Your task to perform on an android device: check data usage Image 0: 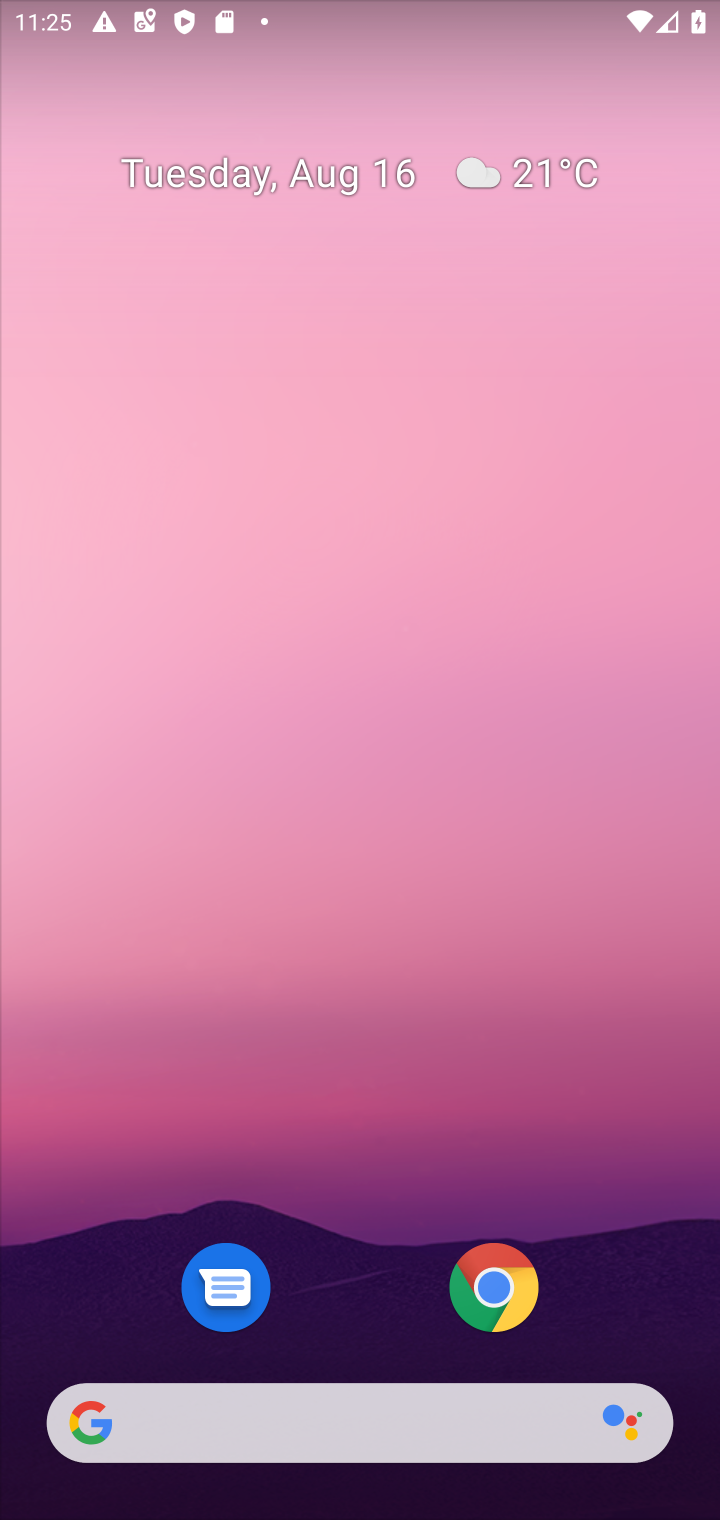
Step 0: drag from (637, 971) to (629, 336)
Your task to perform on an android device: check data usage Image 1: 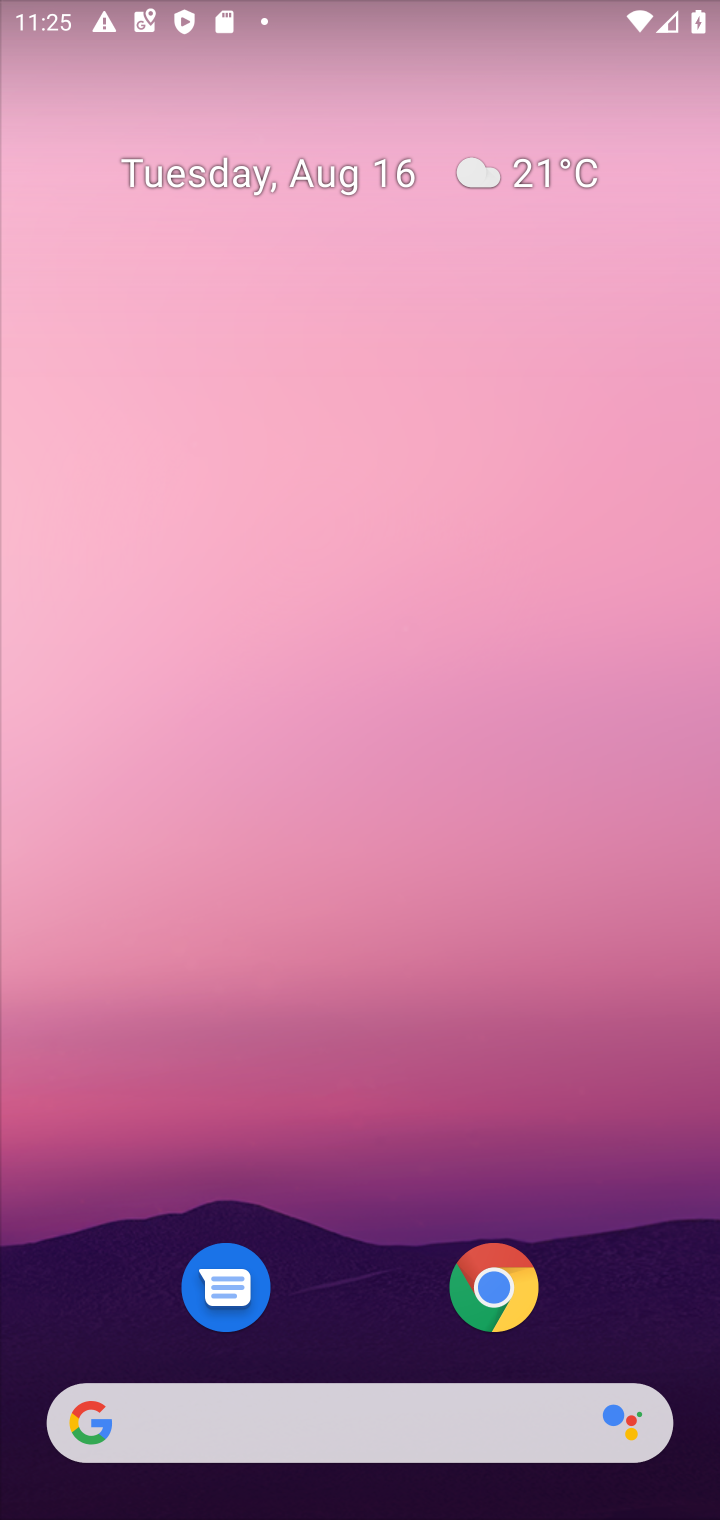
Step 1: drag from (675, 1309) to (598, 166)
Your task to perform on an android device: check data usage Image 2: 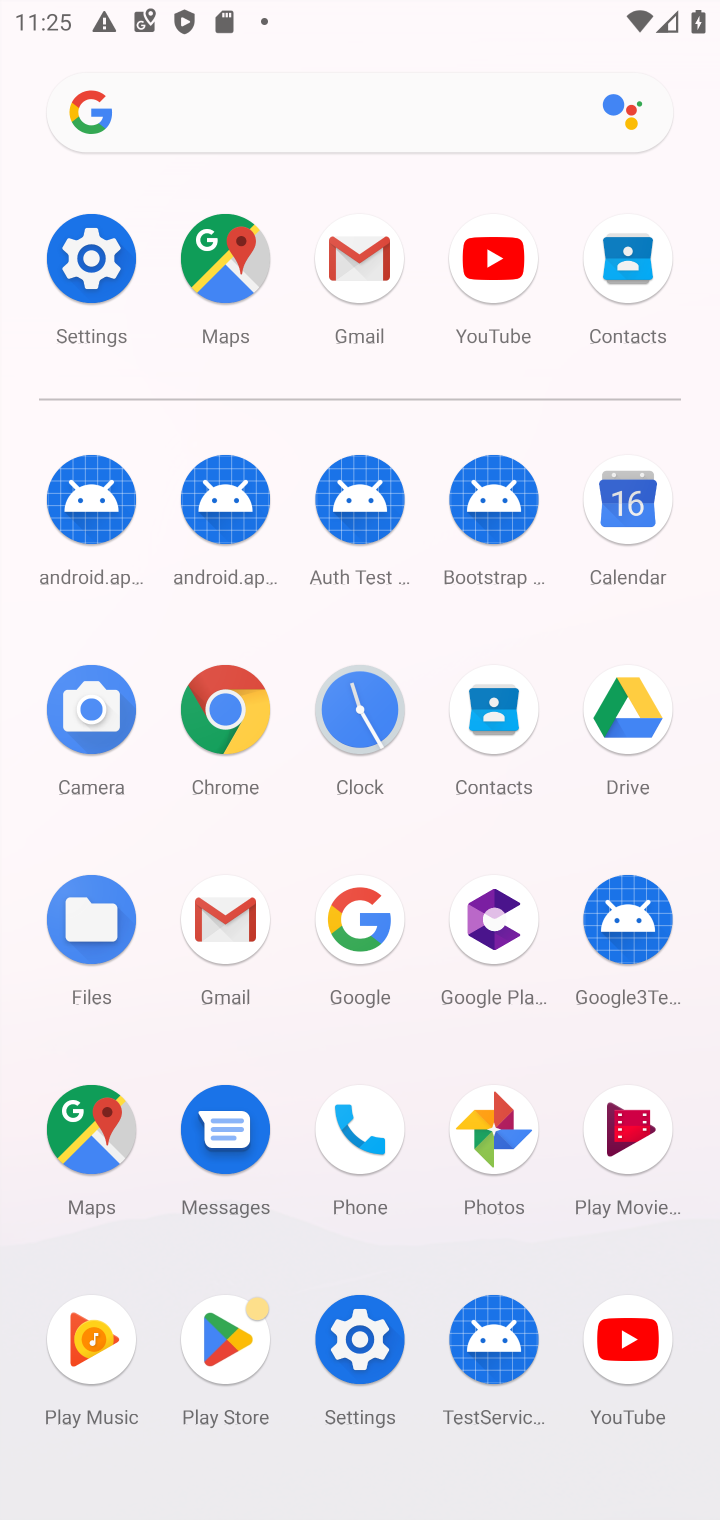
Step 2: click (359, 1342)
Your task to perform on an android device: check data usage Image 3: 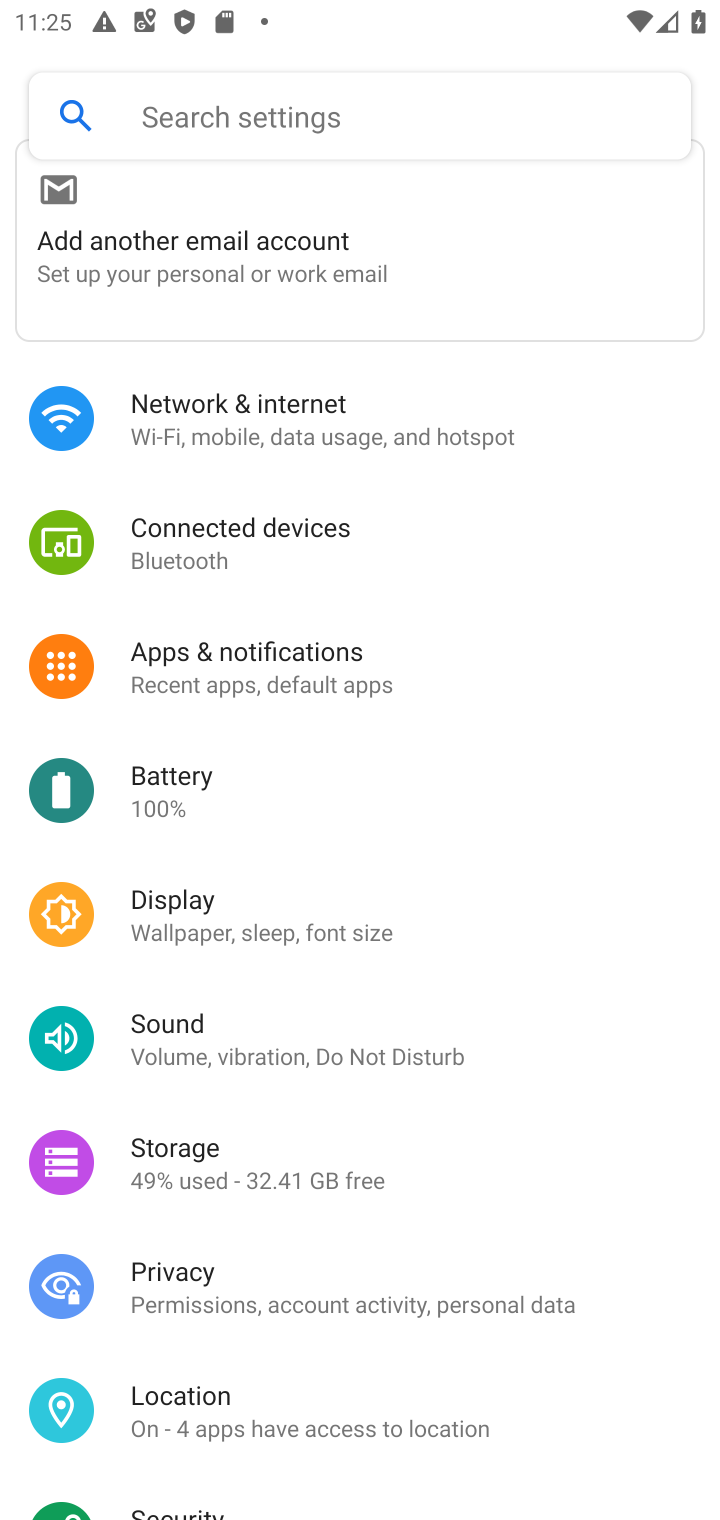
Step 3: click (207, 407)
Your task to perform on an android device: check data usage Image 4: 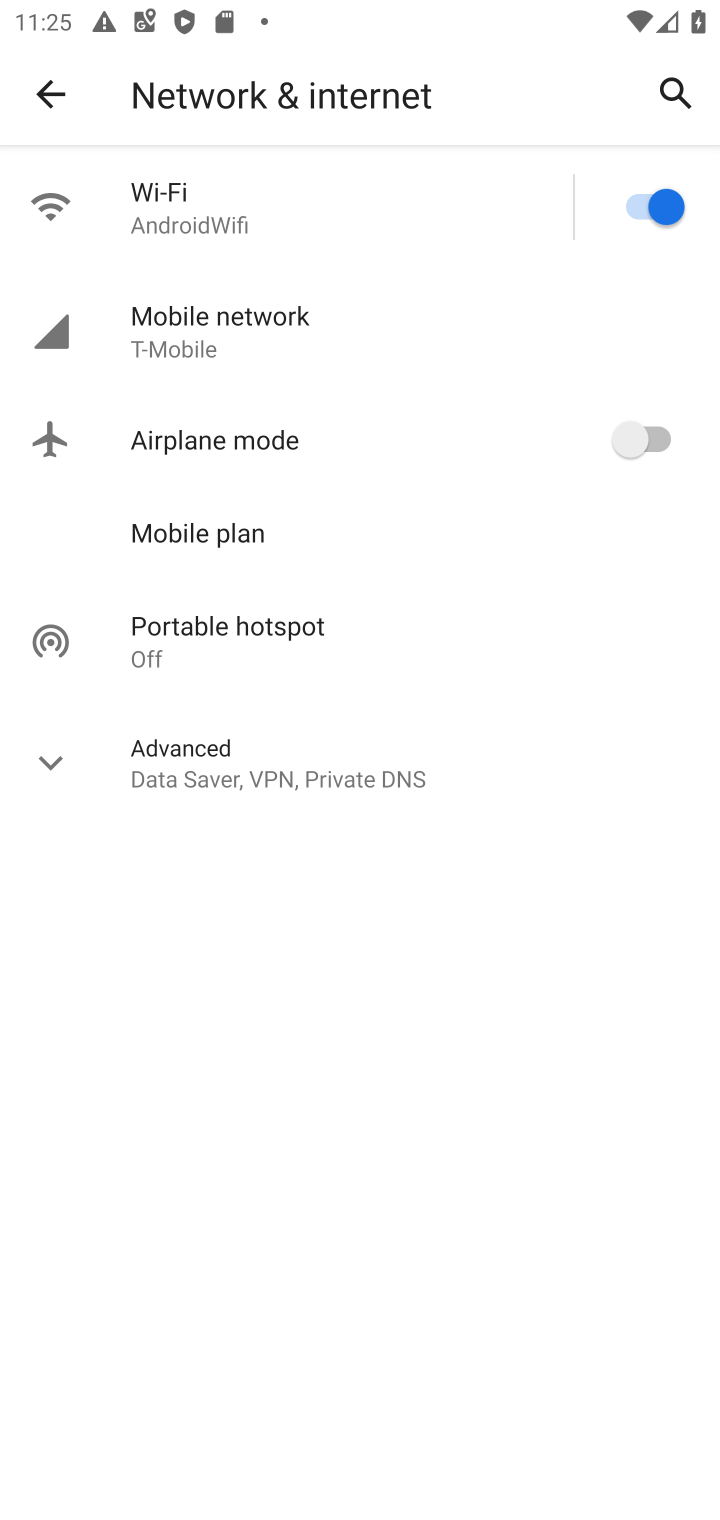
Step 4: click (207, 323)
Your task to perform on an android device: check data usage Image 5: 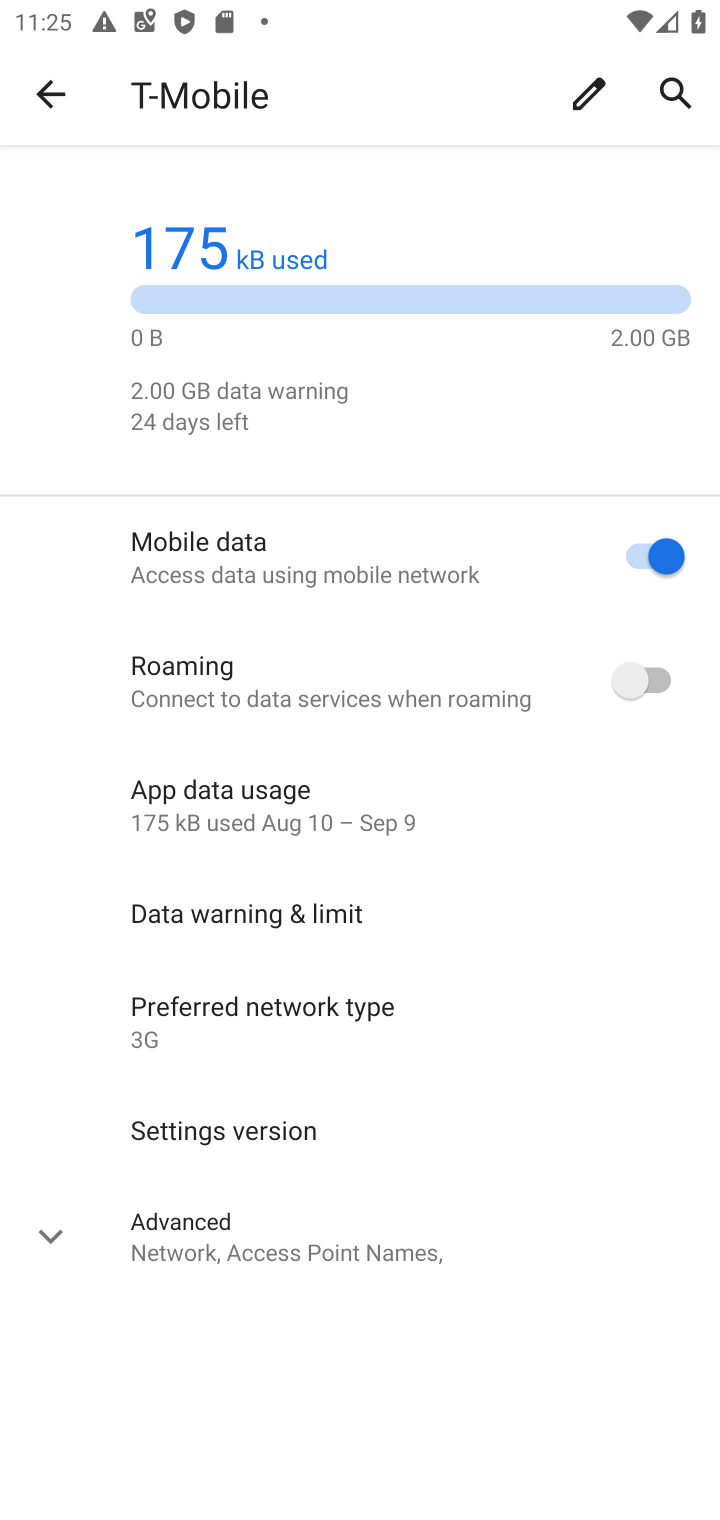
Step 5: task complete